Your task to perform on an android device: toggle wifi Image 0: 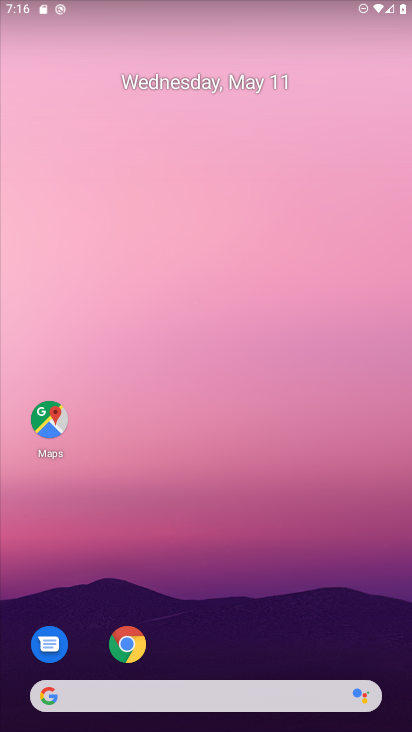
Step 0: drag from (200, 599) to (191, 135)
Your task to perform on an android device: toggle wifi Image 1: 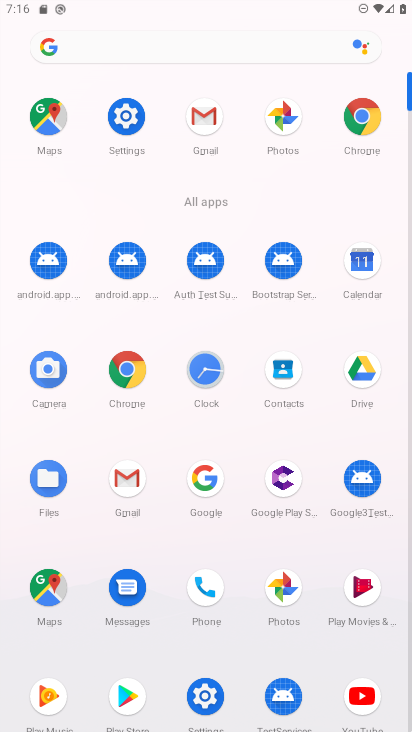
Step 1: click (128, 118)
Your task to perform on an android device: toggle wifi Image 2: 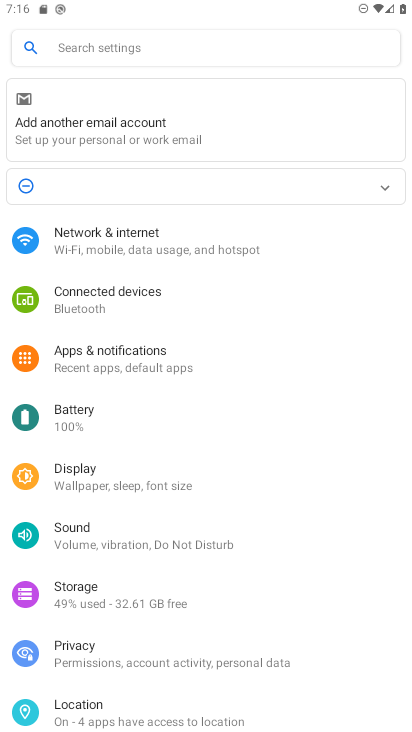
Step 2: click (102, 236)
Your task to perform on an android device: toggle wifi Image 3: 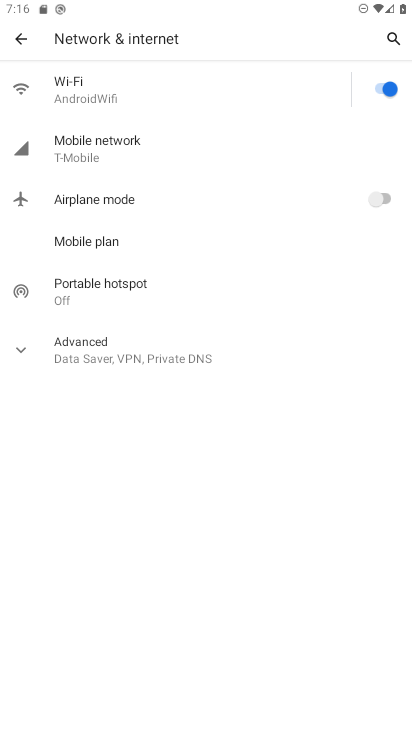
Step 3: click (380, 86)
Your task to perform on an android device: toggle wifi Image 4: 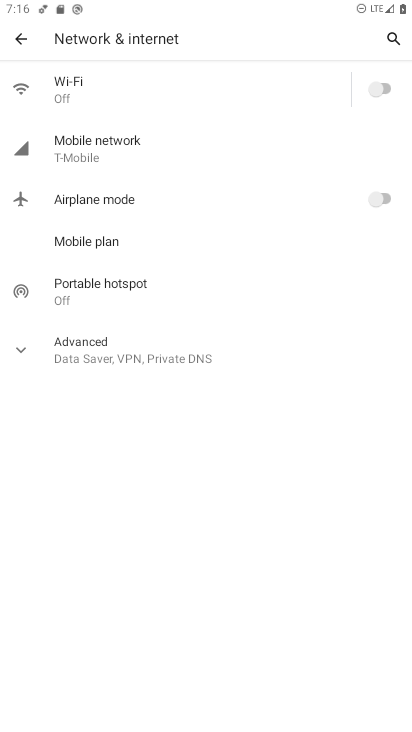
Step 4: task complete